Your task to perform on an android device: Show me popular videos on Youtube Image 0: 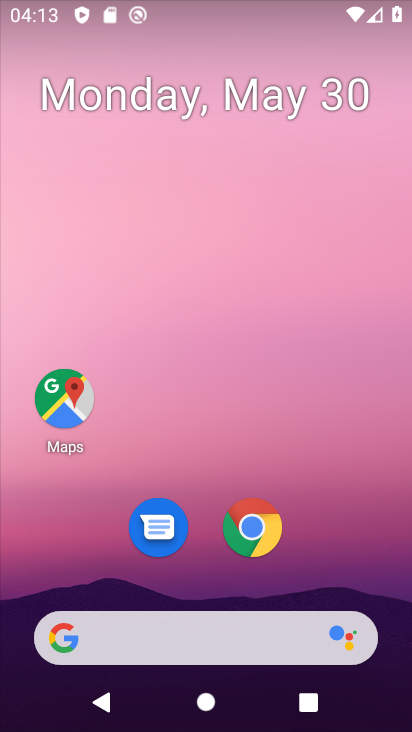
Step 0: click (229, 703)
Your task to perform on an android device: Show me popular videos on Youtube Image 1: 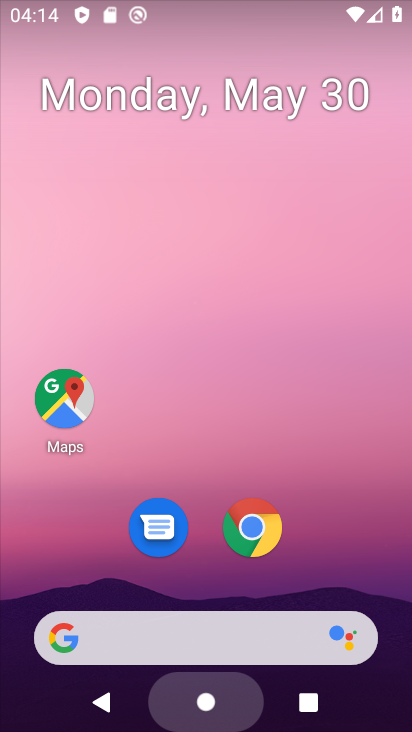
Step 1: drag from (234, 194) to (232, 7)
Your task to perform on an android device: Show me popular videos on Youtube Image 2: 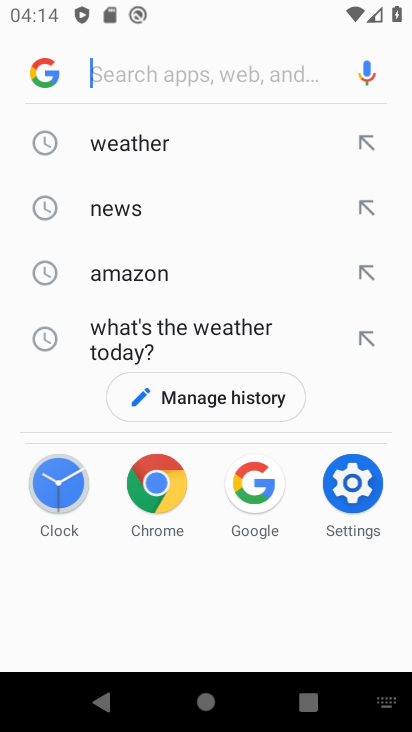
Step 2: press home button
Your task to perform on an android device: Show me popular videos on Youtube Image 3: 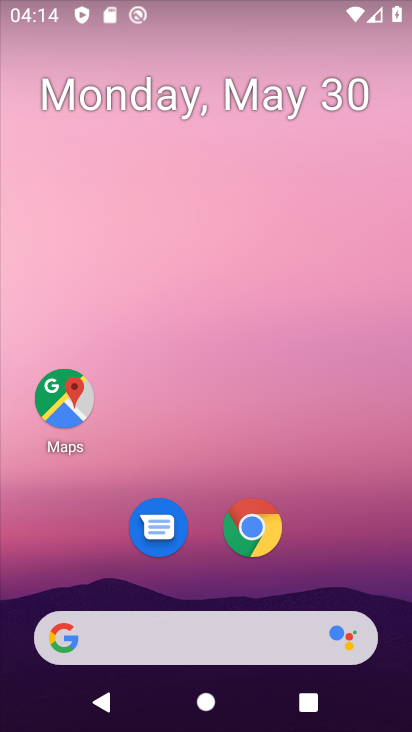
Step 3: drag from (255, 718) to (240, 298)
Your task to perform on an android device: Show me popular videos on Youtube Image 4: 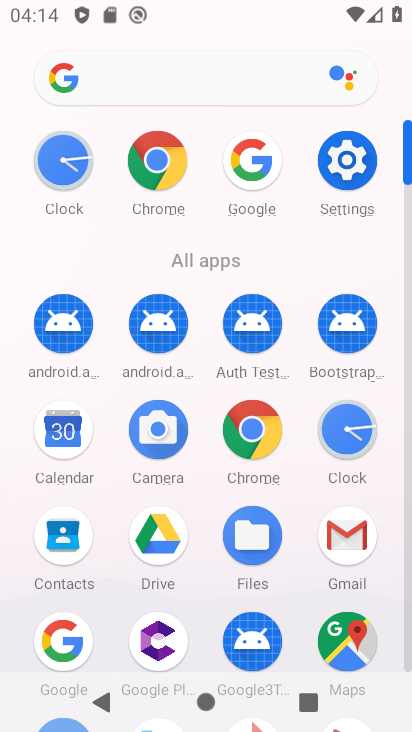
Step 4: drag from (285, 651) to (290, 133)
Your task to perform on an android device: Show me popular videos on Youtube Image 5: 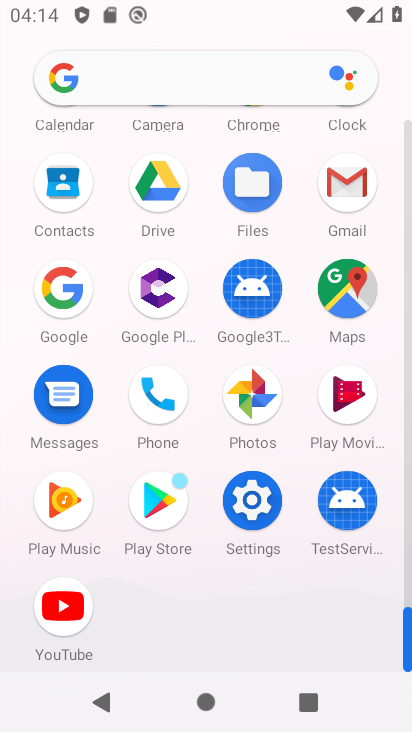
Step 5: click (62, 604)
Your task to perform on an android device: Show me popular videos on Youtube Image 6: 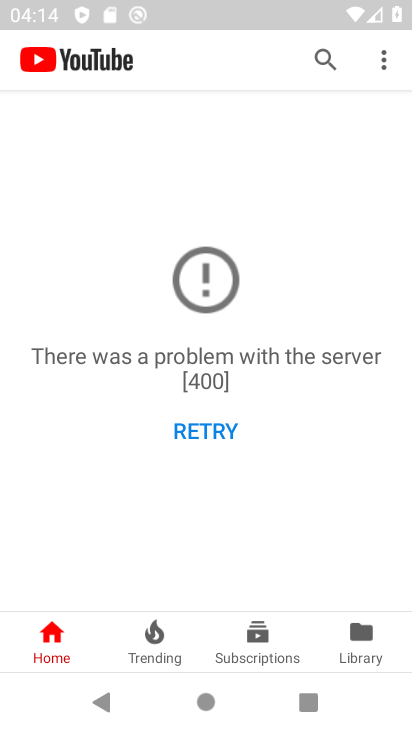
Step 6: click (315, 49)
Your task to perform on an android device: Show me popular videos on Youtube Image 7: 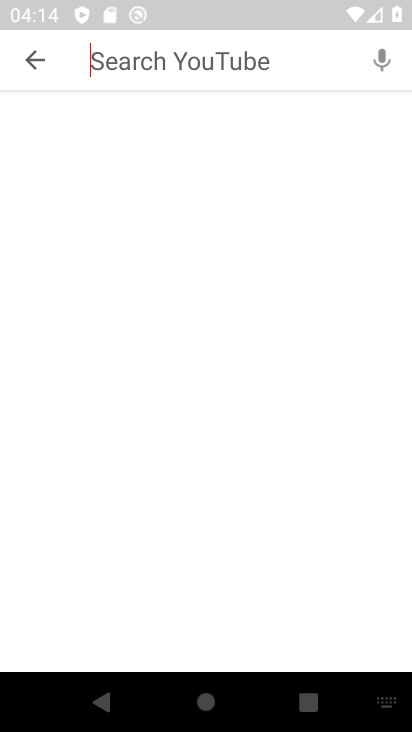
Step 7: type "popular video on youtube"
Your task to perform on an android device: Show me popular videos on Youtube Image 8: 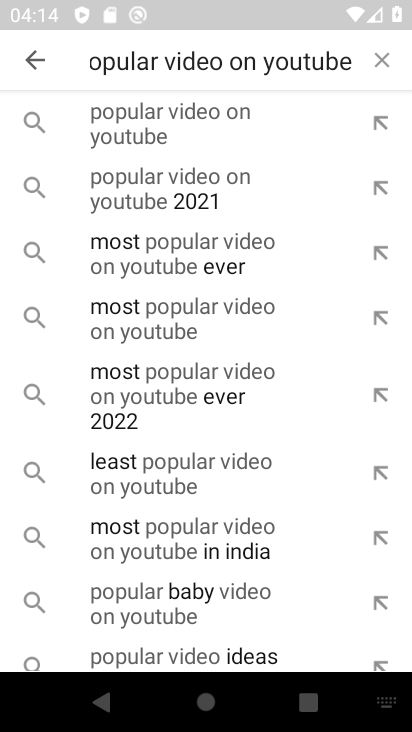
Step 8: click (155, 123)
Your task to perform on an android device: Show me popular videos on Youtube Image 9: 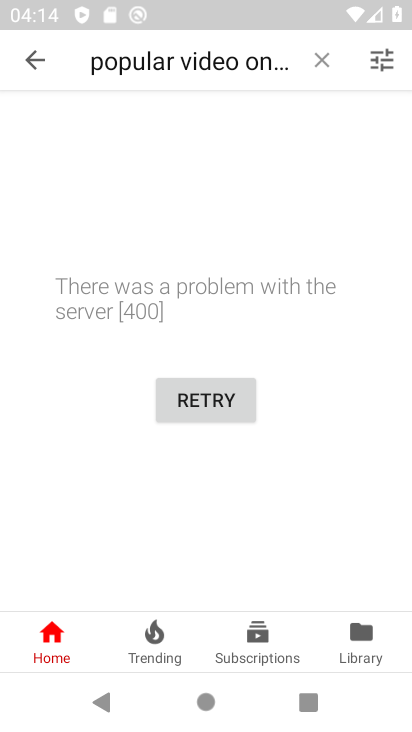
Step 9: task complete